Your task to perform on an android device: Turn on the flashlight Image 0: 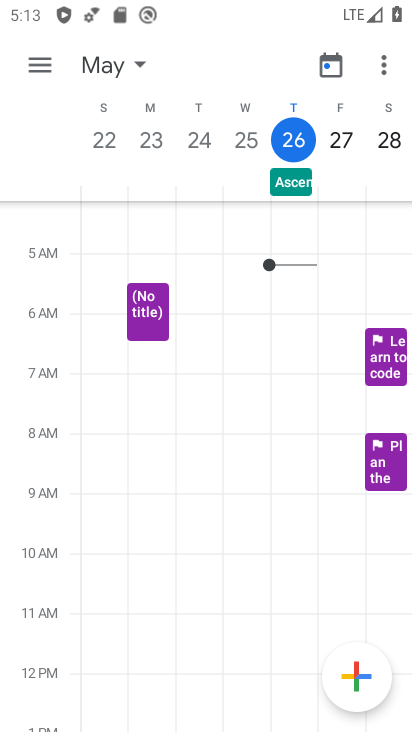
Step 0: press home button
Your task to perform on an android device: Turn on the flashlight Image 1: 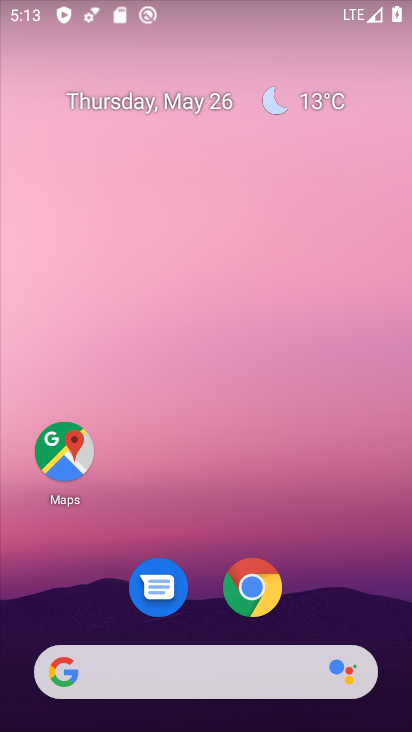
Step 1: drag from (217, 713) to (218, 134)
Your task to perform on an android device: Turn on the flashlight Image 2: 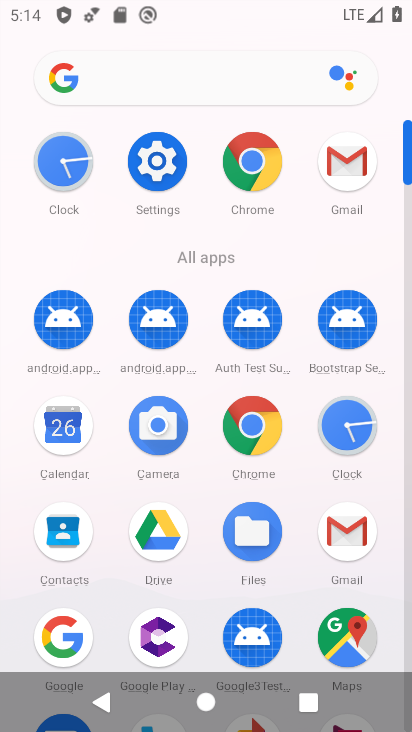
Step 2: click (153, 164)
Your task to perform on an android device: Turn on the flashlight Image 3: 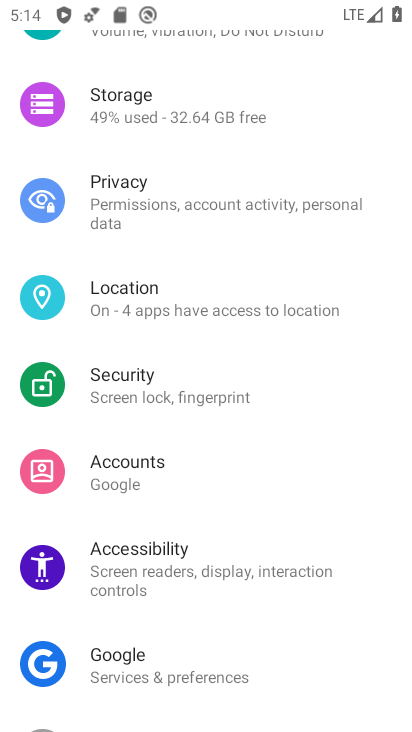
Step 3: task complete